Your task to perform on an android device: Open Android settings Image 0: 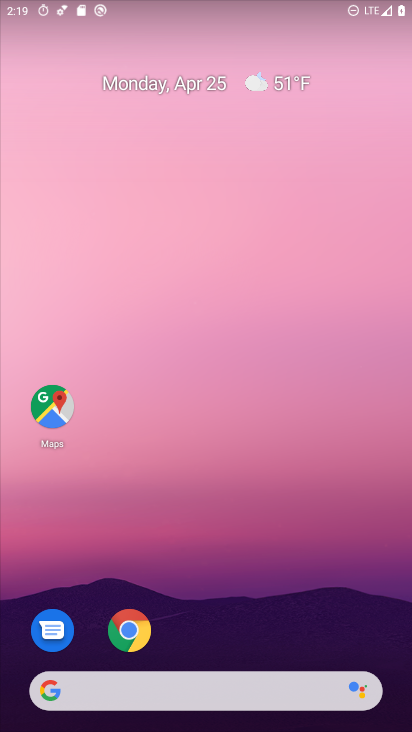
Step 0: click (358, 48)
Your task to perform on an android device: Open Android settings Image 1: 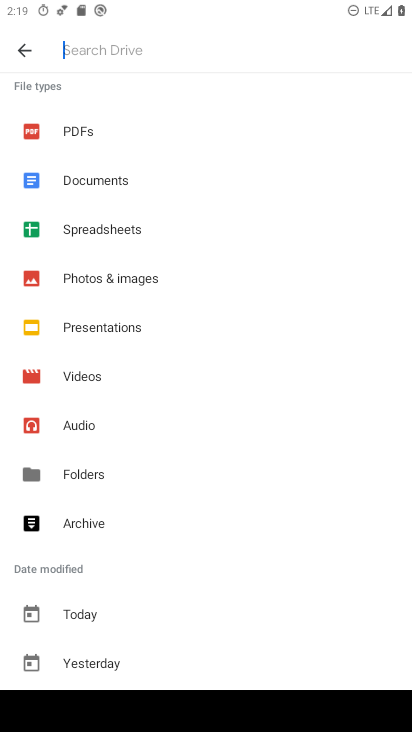
Step 1: click (20, 47)
Your task to perform on an android device: Open Android settings Image 2: 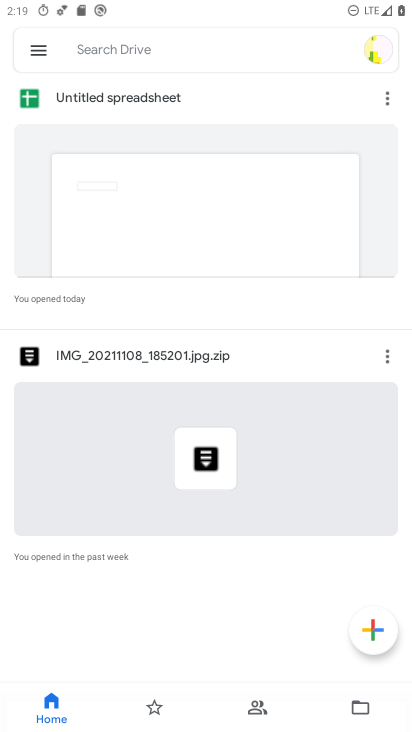
Step 2: drag from (246, 550) to (291, 286)
Your task to perform on an android device: Open Android settings Image 3: 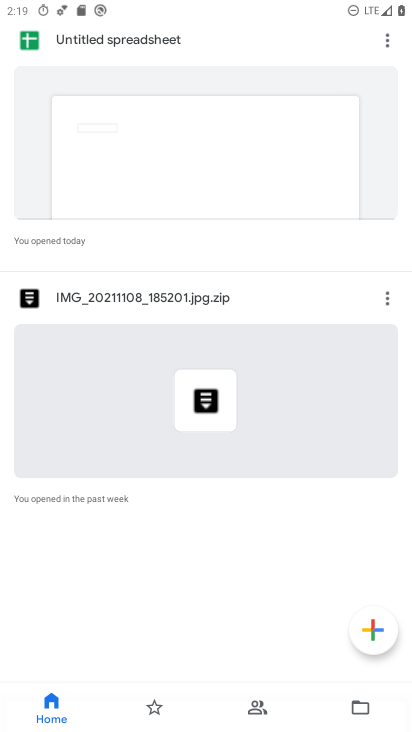
Step 3: drag from (138, 153) to (301, 586)
Your task to perform on an android device: Open Android settings Image 4: 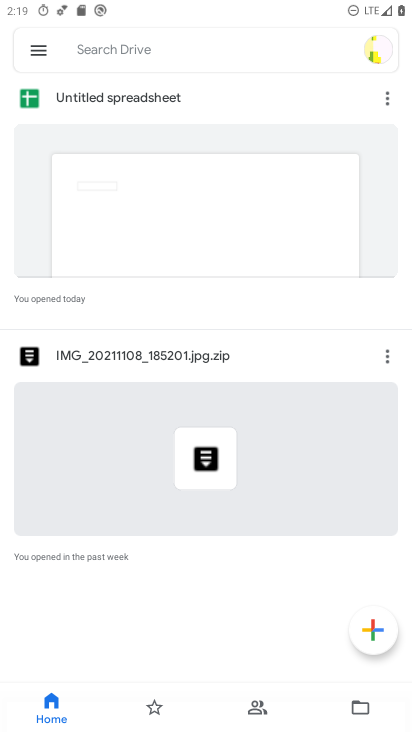
Step 4: drag from (224, 599) to (296, 293)
Your task to perform on an android device: Open Android settings Image 5: 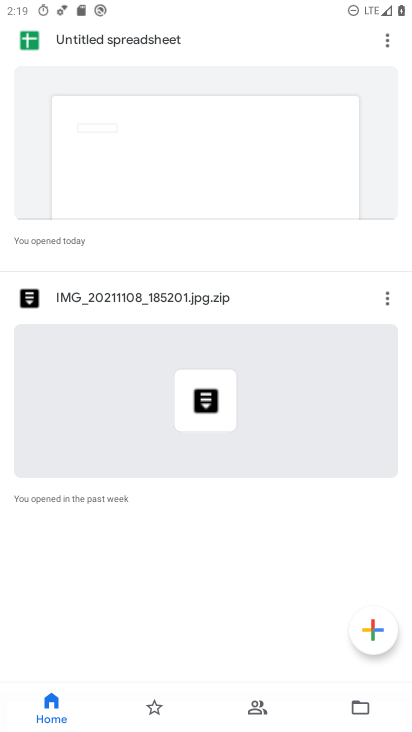
Step 5: drag from (243, 230) to (317, 556)
Your task to perform on an android device: Open Android settings Image 6: 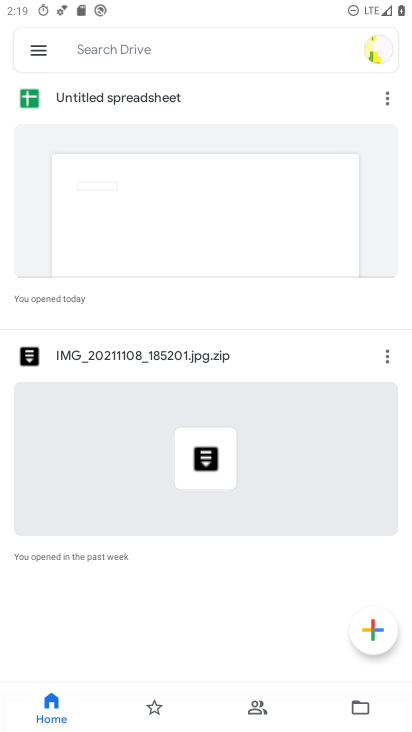
Step 6: click (37, 49)
Your task to perform on an android device: Open Android settings Image 7: 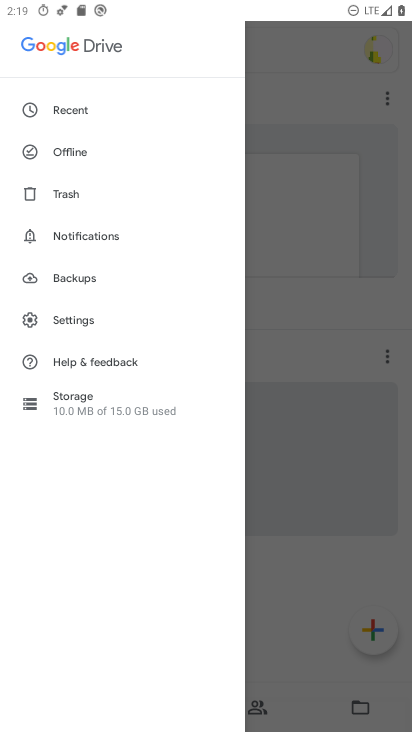
Step 7: press home button
Your task to perform on an android device: Open Android settings Image 8: 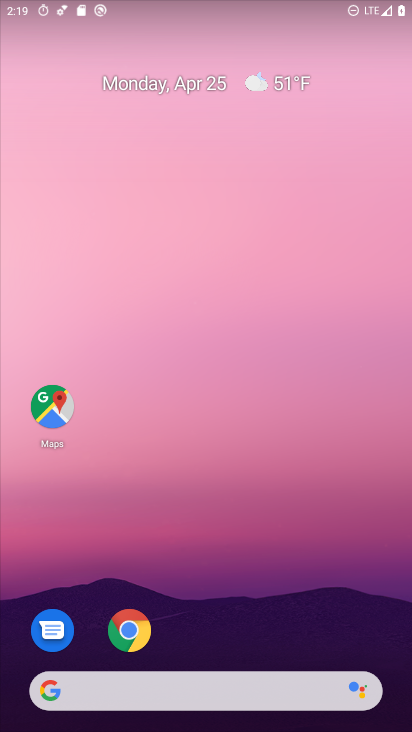
Step 8: drag from (201, 641) to (270, 55)
Your task to perform on an android device: Open Android settings Image 9: 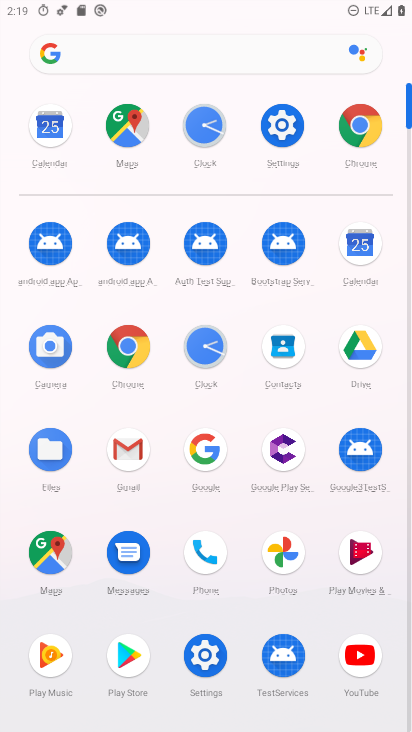
Step 9: click (279, 129)
Your task to perform on an android device: Open Android settings Image 10: 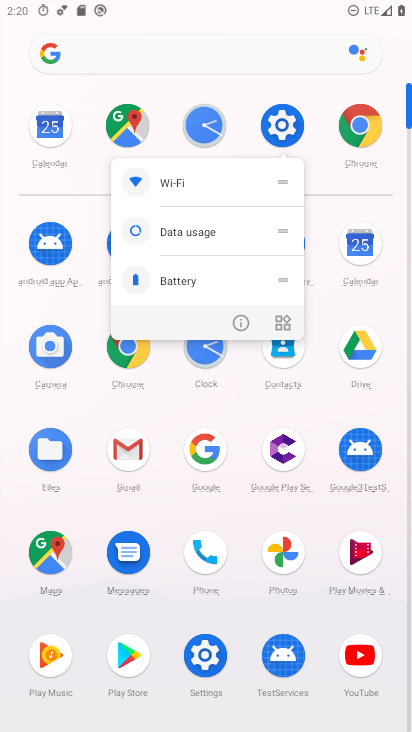
Step 10: click (245, 320)
Your task to perform on an android device: Open Android settings Image 11: 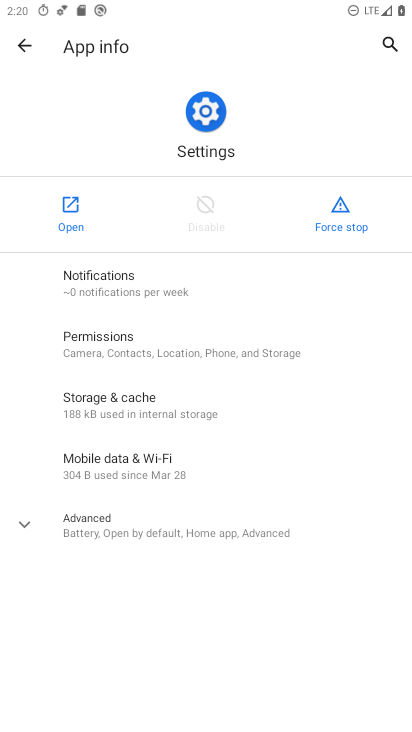
Step 11: click (81, 225)
Your task to perform on an android device: Open Android settings Image 12: 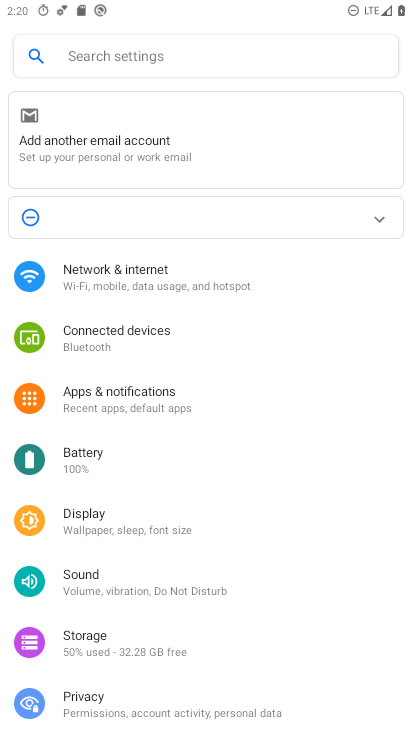
Step 12: drag from (209, 597) to (274, 168)
Your task to perform on an android device: Open Android settings Image 13: 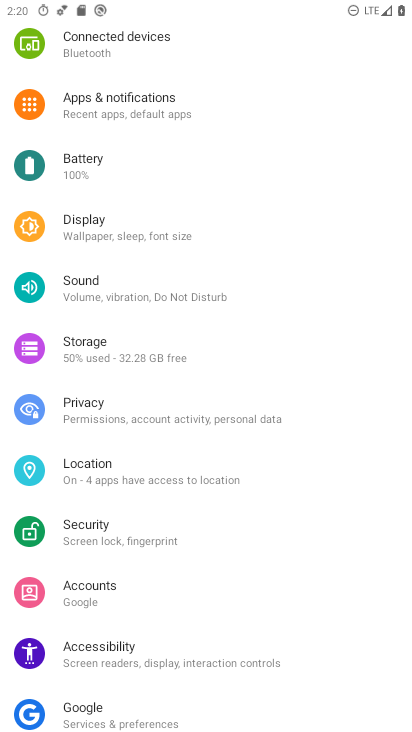
Step 13: drag from (181, 632) to (314, 55)
Your task to perform on an android device: Open Android settings Image 14: 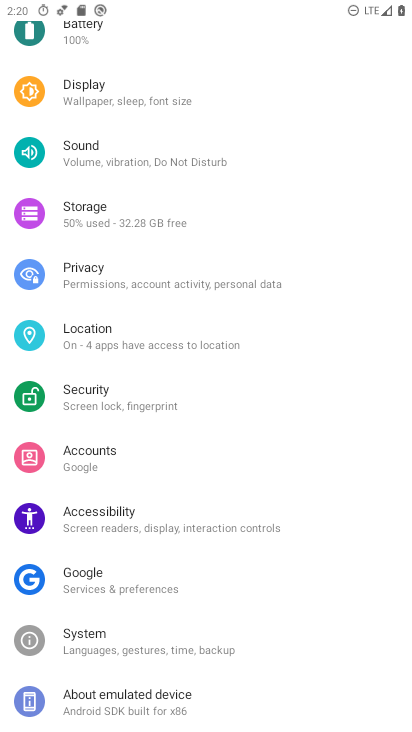
Step 14: click (181, 694)
Your task to perform on an android device: Open Android settings Image 15: 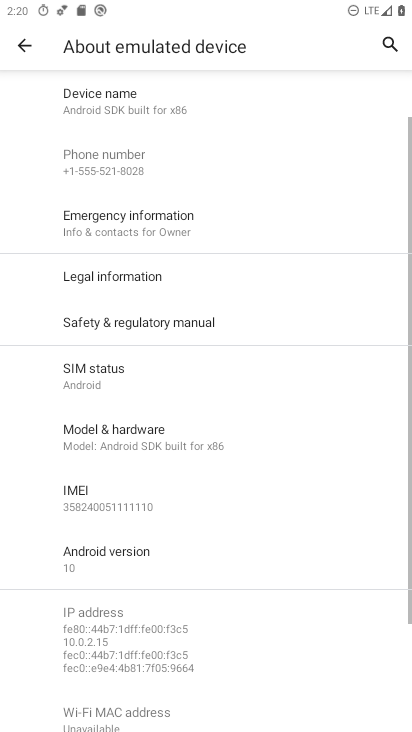
Step 15: click (131, 553)
Your task to perform on an android device: Open Android settings Image 16: 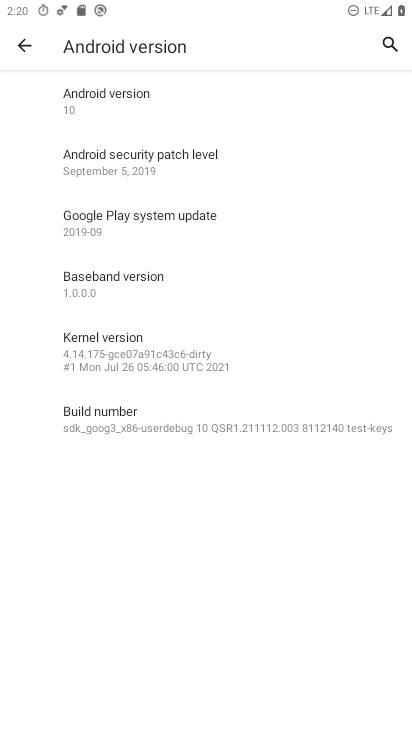
Step 16: task complete